Your task to perform on an android device: see tabs open on other devices in the chrome app Image 0: 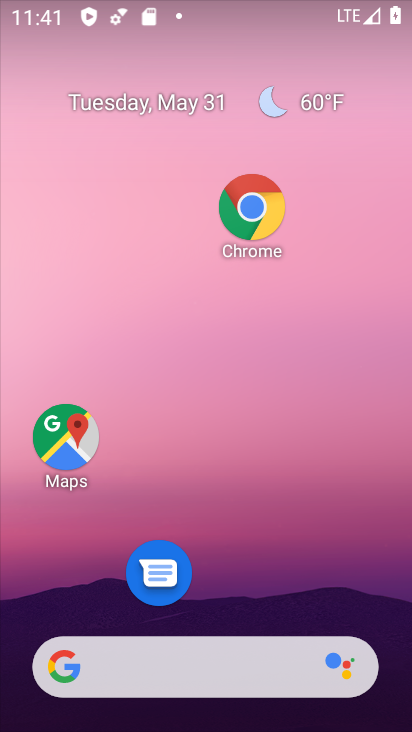
Step 0: click (251, 234)
Your task to perform on an android device: see tabs open on other devices in the chrome app Image 1: 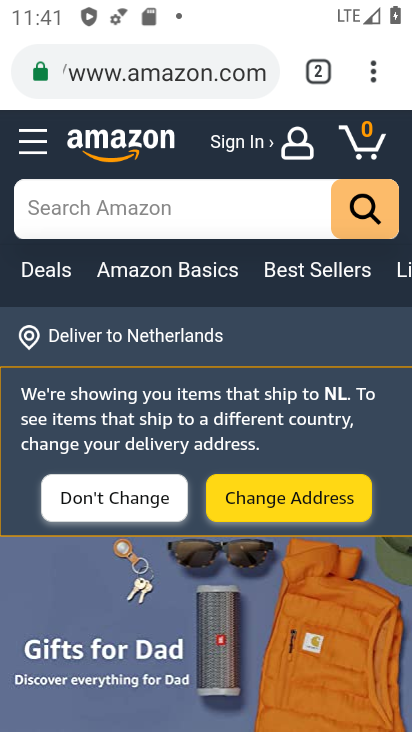
Step 1: task complete